Your task to perform on an android device: Go to wifi settings Image 0: 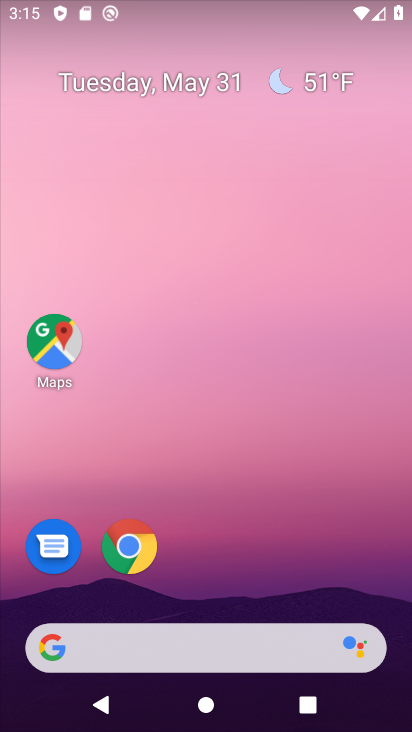
Step 0: drag from (195, 586) to (155, 222)
Your task to perform on an android device: Go to wifi settings Image 1: 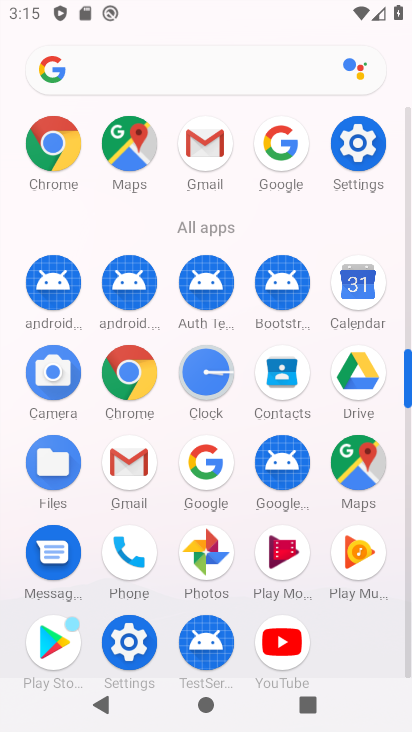
Step 1: click (137, 642)
Your task to perform on an android device: Go to wifi settings Image 2: 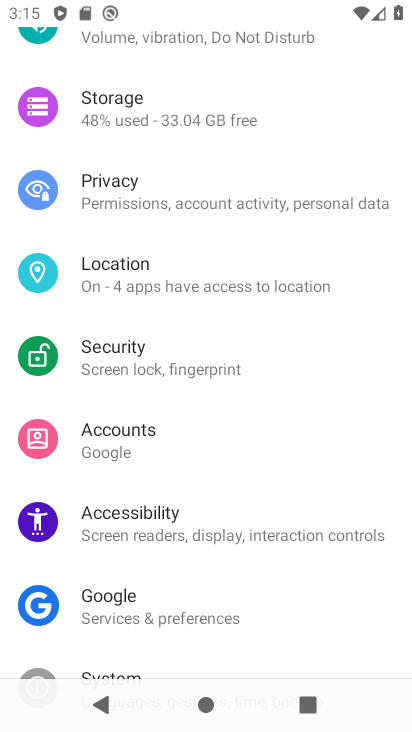
Step 2: drag from (131, 644) to (144, 305)
Your task to perform on an android device: Go to wifi settings Image 3: 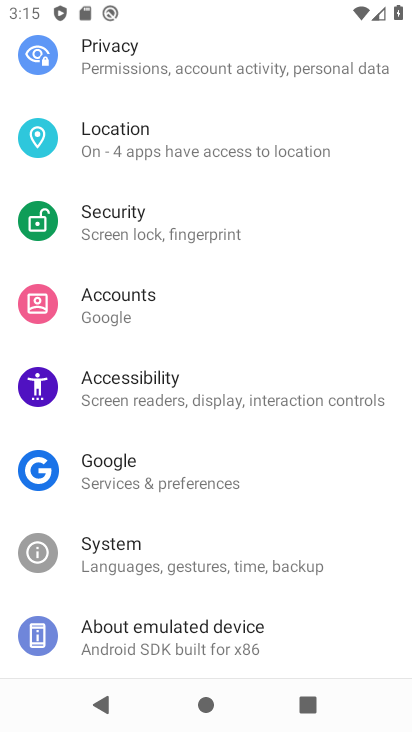
Step 3: drag from (157, 211) to (128, 570)
Your task to perform on an android device: Go to wifi settings Image 4: 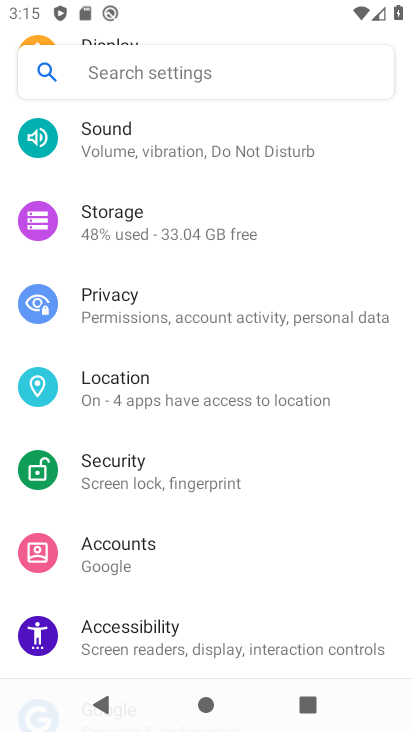
Step 4: drag from (197, 196) to (175, 494)
Your task to perform on an android device: Go to wifi settings Image 5: 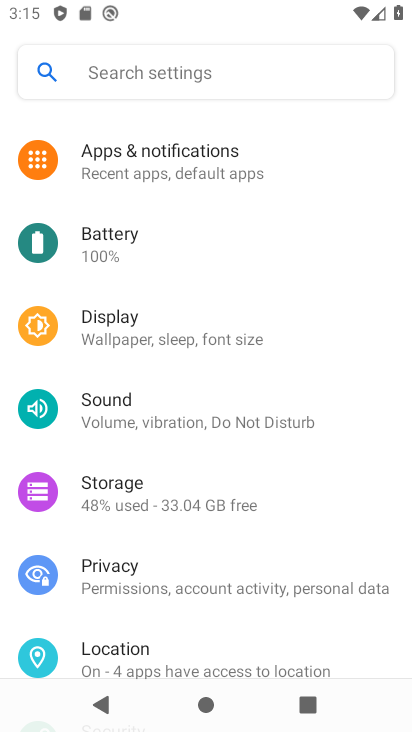
Step 5: drag from (167, 190) to (114, 443)
Your task to perform on an android device: Go to wifi settings Image 6: 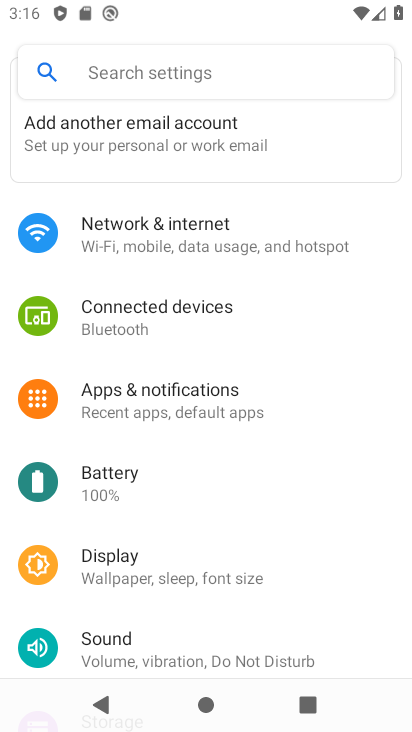
Step 6: click (136, 239)
Your task to perform on an android device: Go to wifi settings Image 7: 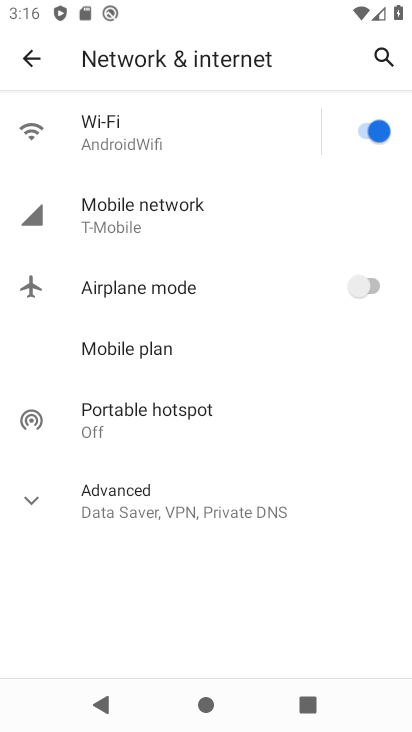
Step 7: click (151, 135)
Your task to perform on an android device: Go to wifi settings Image 8: 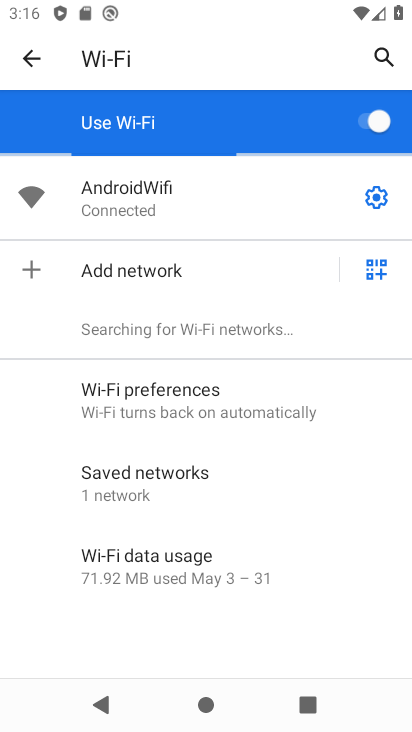
Step 8: task complete